Your task to perform on an android device: turn on the 12-hour format for clock Image 0: 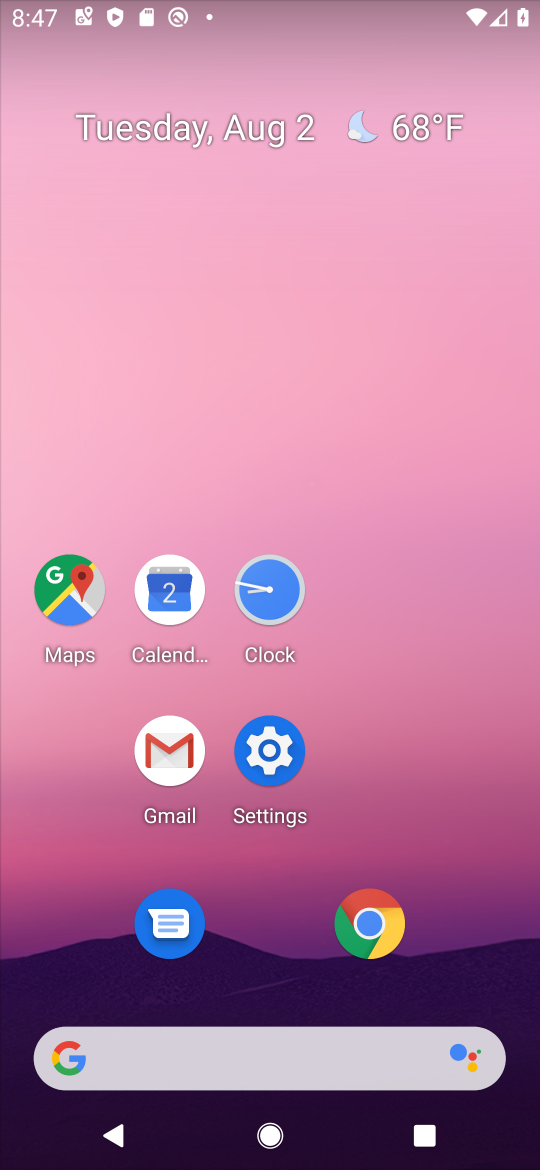
Step 0: click (252, 582)
Your task to perform on an android device: turn on the 12-hour format for clock Image 1: 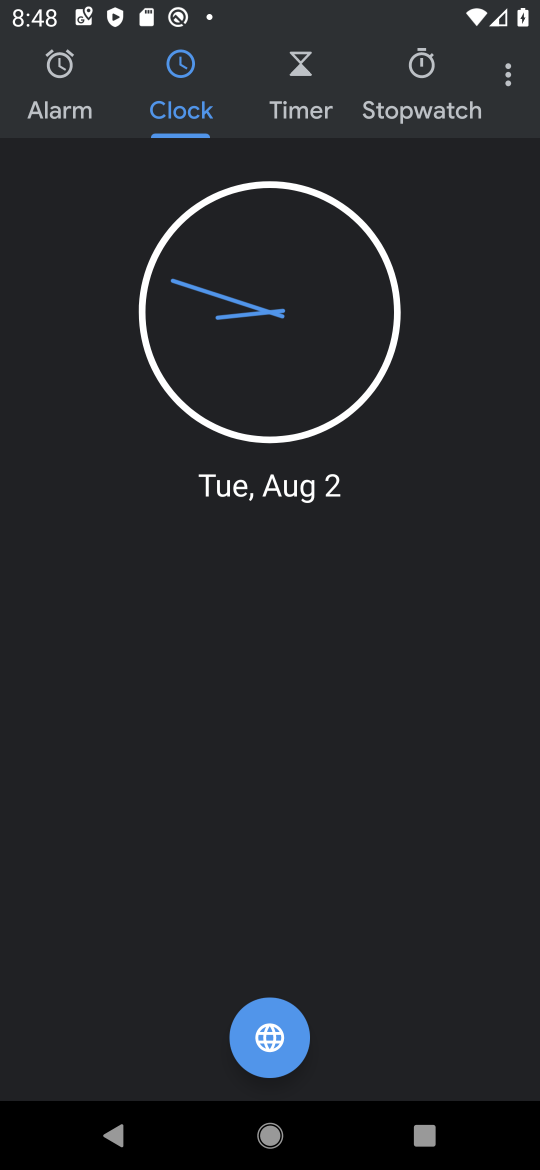
Step 1: click (505, 73)
Your task to perform on an android device: turn on the 12-hour format for clock Image 2: 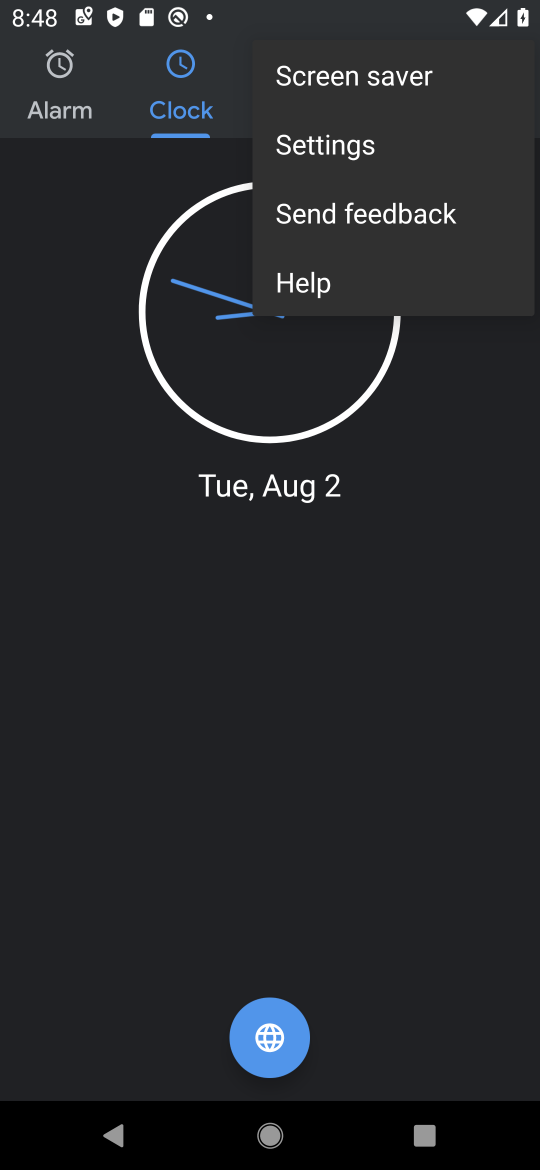
Step 2: click (290, 146)
Your task to perform on an android device: turn on the 12-hour format for clock Image 3: 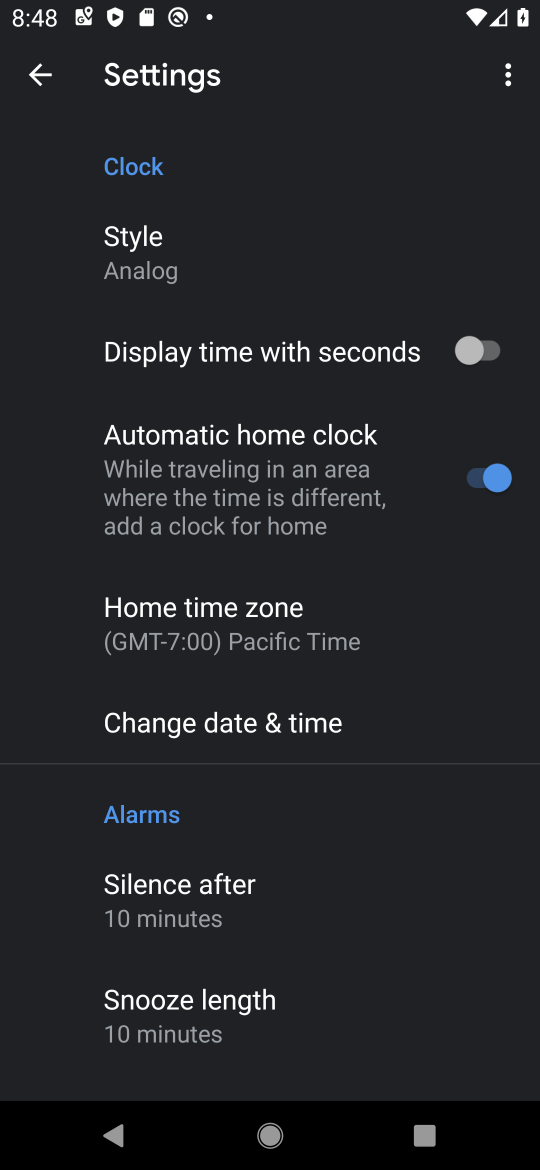
Step 3: click (199, 715)
Your task to perform on an android device: turn on the 12-hour format for clock Image 4: 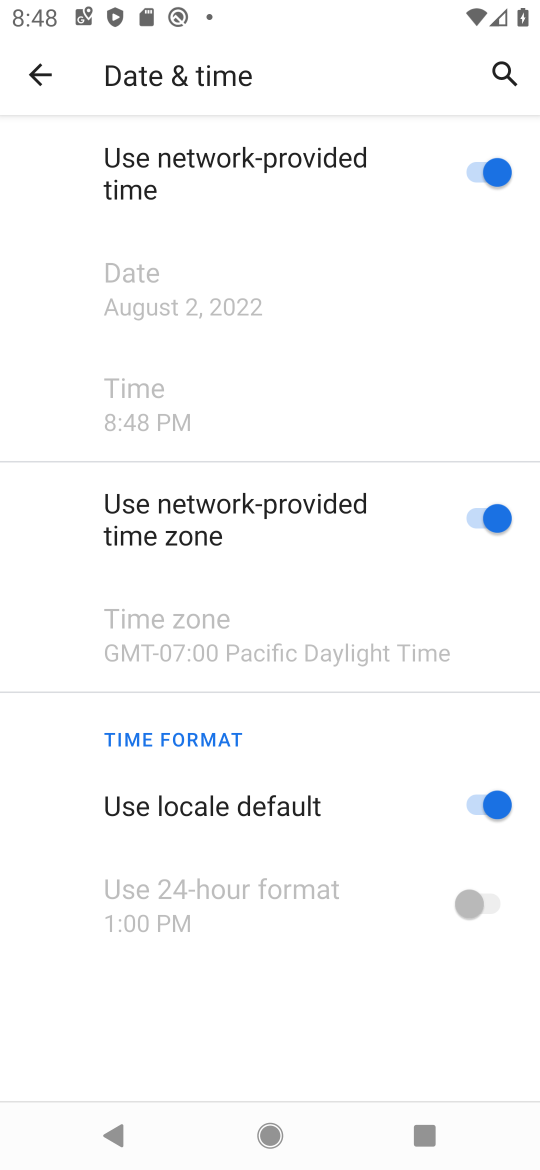
Step 4: task complete